Your task to perform on an android device: Show me recent news Image 0: 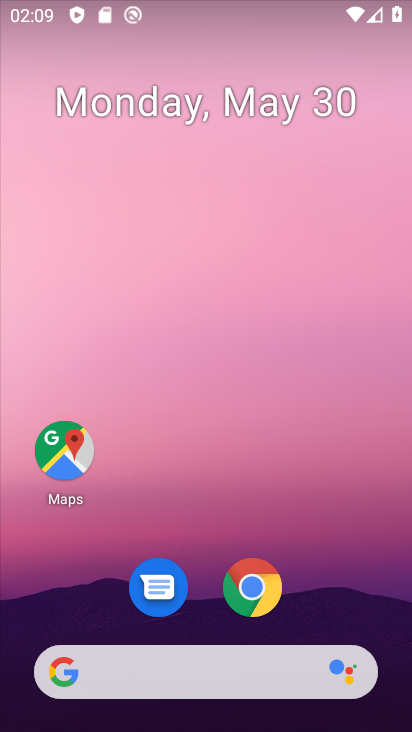
Step 0: click (201, 674)
Your task to perform on an android device: Show me recent news Image 1: 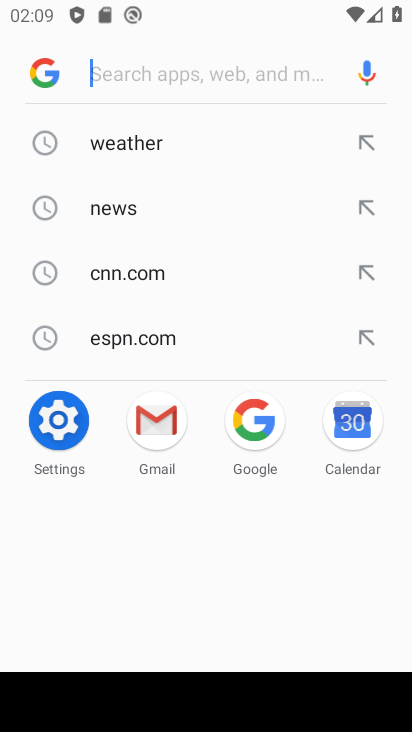
Step 1: type "Recent news"
Your task to perform on an android device: Show me recent news Image 2: 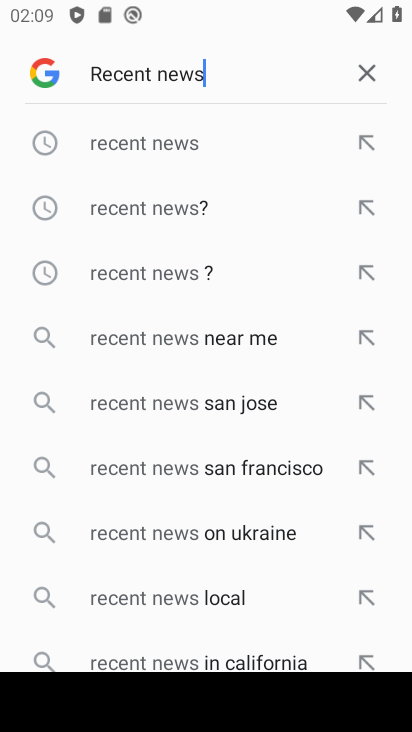
Step 2: click (160, 149)
Your task to perform on an android device: Show me recent news Image 3: 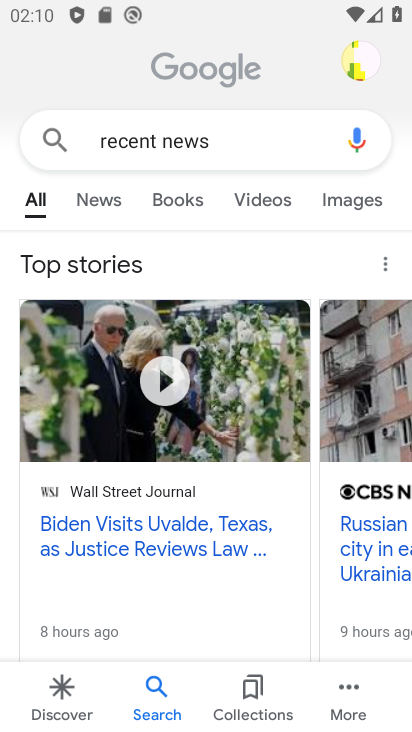
Step 3: task complete